Your task to perform on an android device: turn off location Image 0: 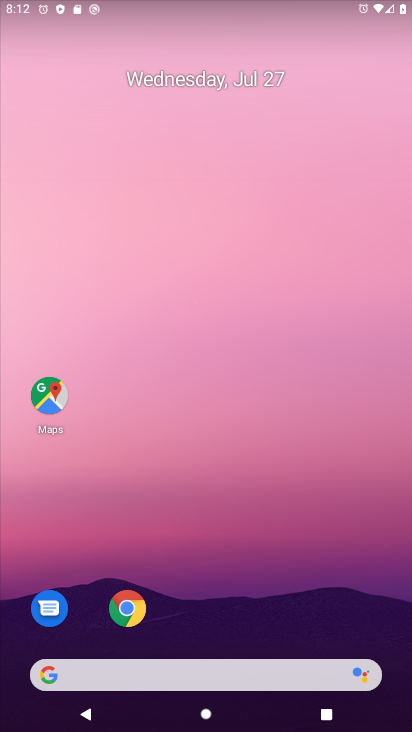
Step 0: drag from (199, 379) to (182, 139)
Your task to perform on an android device: turn off location Image 1: 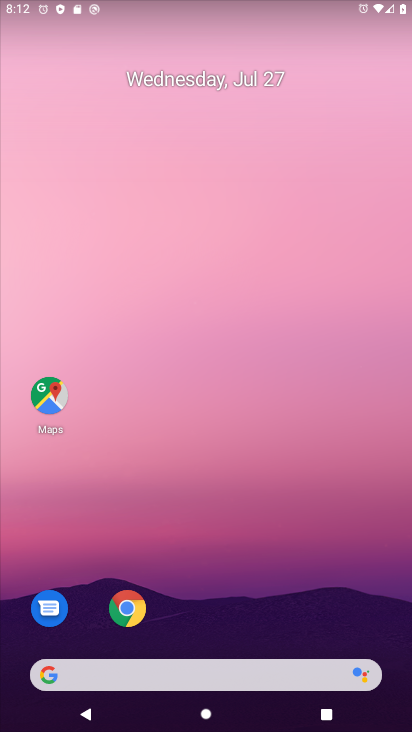
Step 1: drag from (254, 529) to (269, 129)
Your task to perform on an android device: turn off location Image 2: 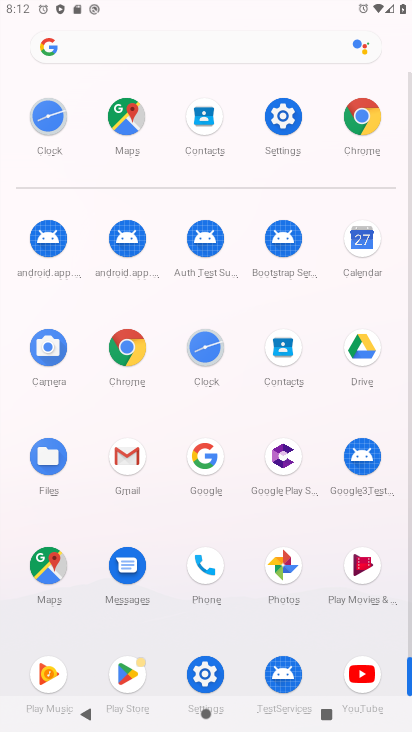
Step 2: click (281, 121)
Your task to perform on an android device: turn off location Image 3: 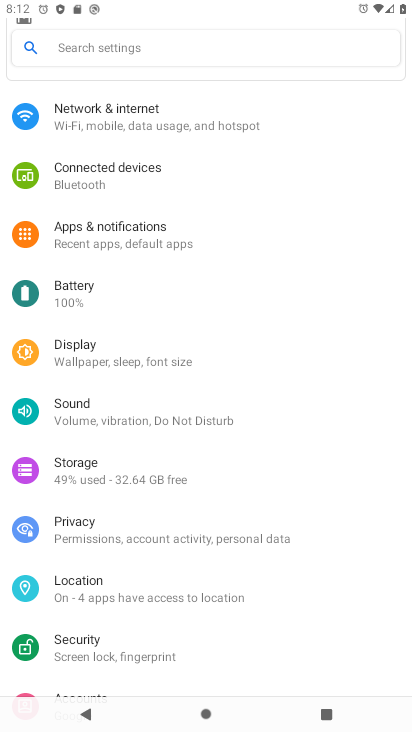
Step 3: click (96, 580)
Your task to perform on an android device: turn off location Image 4: 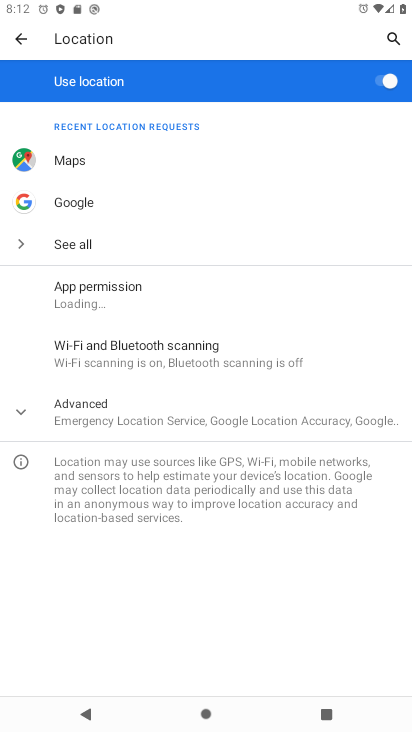
Step 4: click (386, 84)
Your task to perform on an android device: turn off location Image 5: 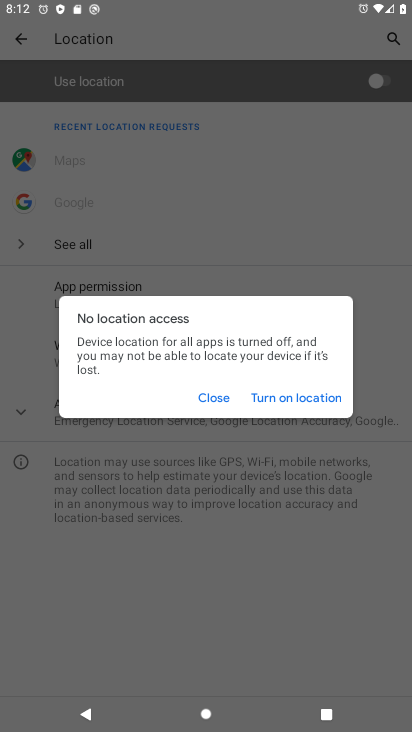
Step 5: task complete